Your task to perform on an android device: Open Chrome and go to settings Image 0: 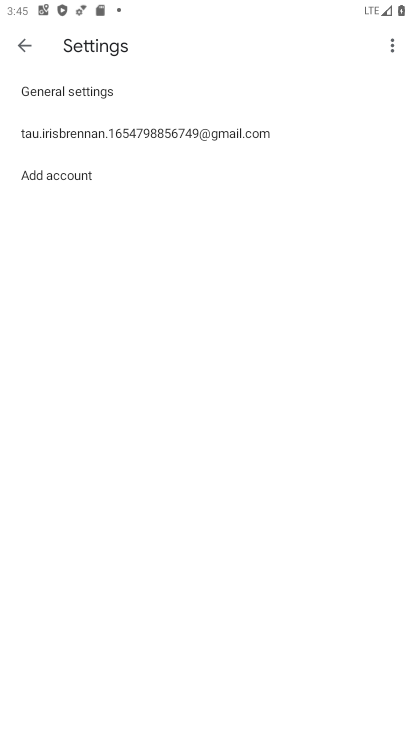
Step 0: press home button
Your task to perform on an android device: Open Chrome and go to settings Image 1: 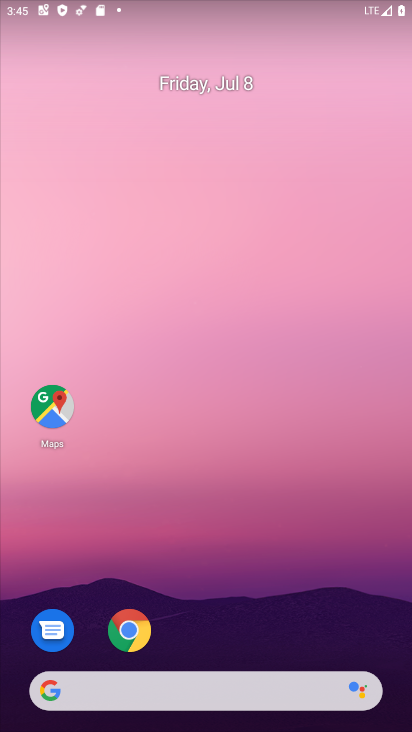
Step 1: click (129, 627)
Your task to perform on an android device: Open Chrome and go to settings Image 2: 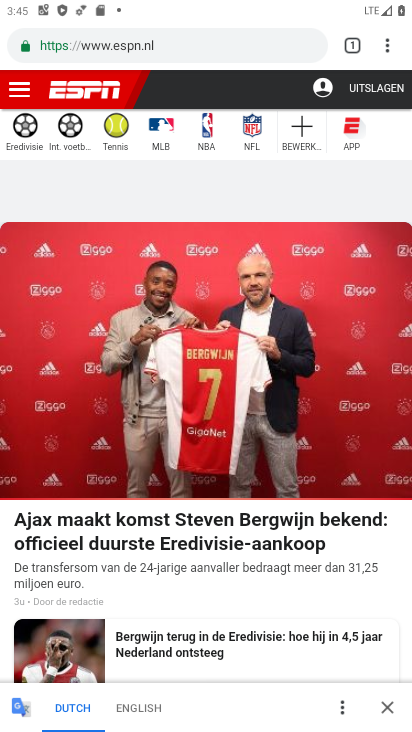
Step 2: click (388, 47)
Your task to perform on an android device: Open Chrome and go to settings Image 3: 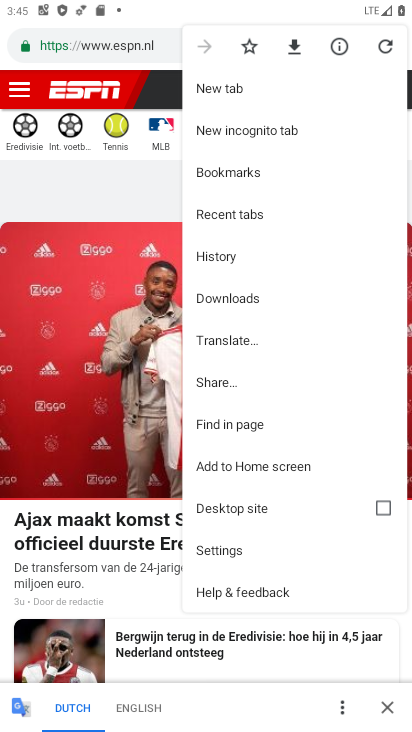
Step 3: click (218, 546)
Your task to perform on an android device: Open Chrome and go to settings Image 4: 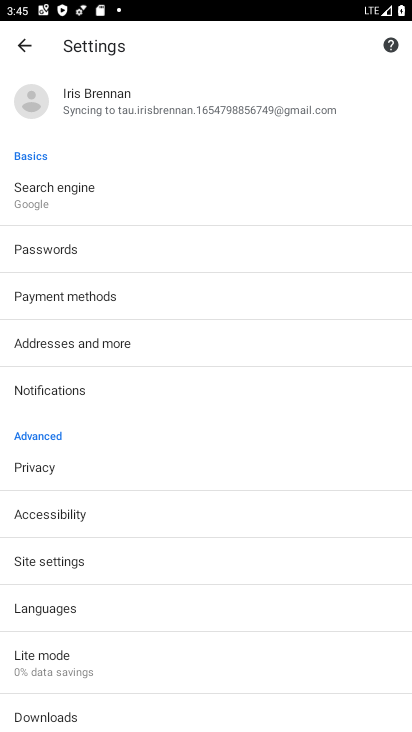
Step 4: task complete